Your task to perform on an android device: What's the weather going to be this weekend? Image 0: 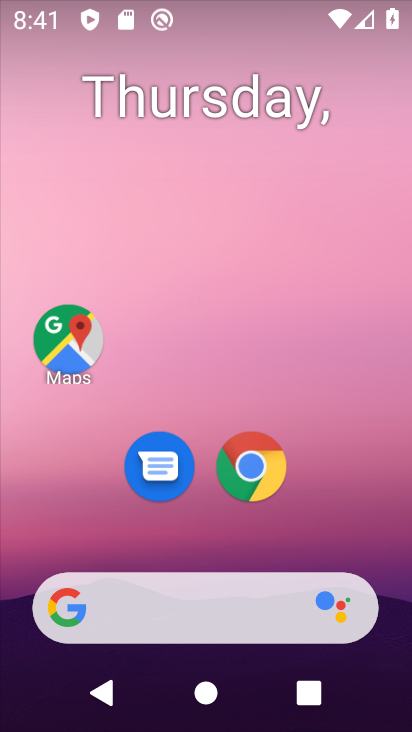
Step 0: press home button
Your task to perform on an android device: What's the weather going to be this weekend? Image 1: 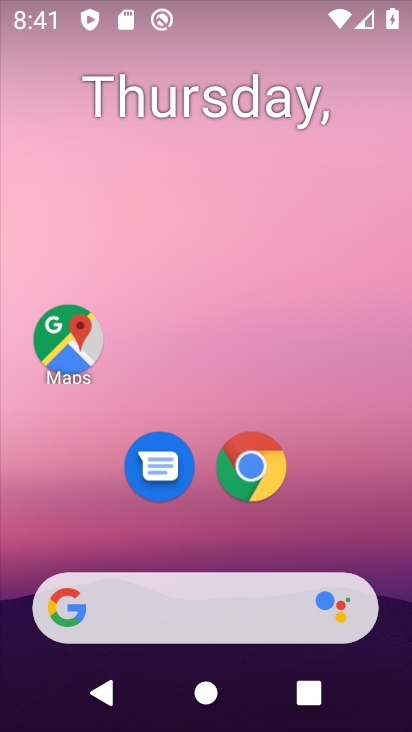
Step 1: drag from (161, 615) to (322, 190)
Your task to perform on an android device: What's the weather going to be this weekend? Image 2: 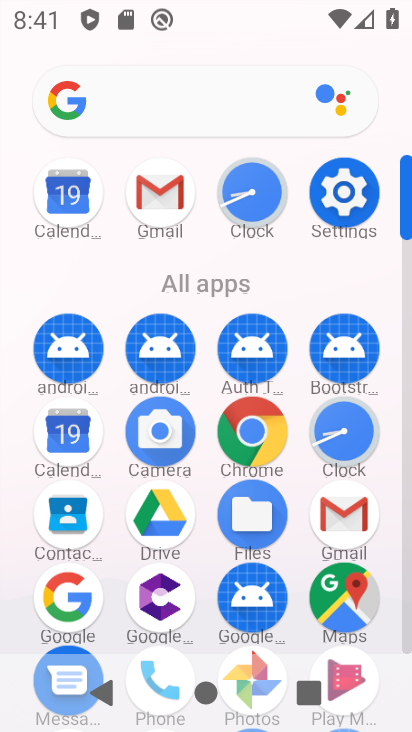
Step 2: click (73, 596)
Your task to perform on an android device: What's the weather going to be this weekend? Image 3: 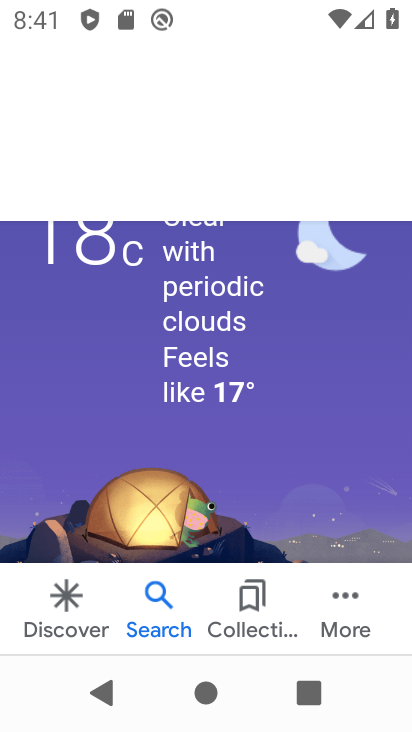
Step 3: click (386, 98)
Your task to perform on an android device: What's the weather going to be this weekend? Image 4: 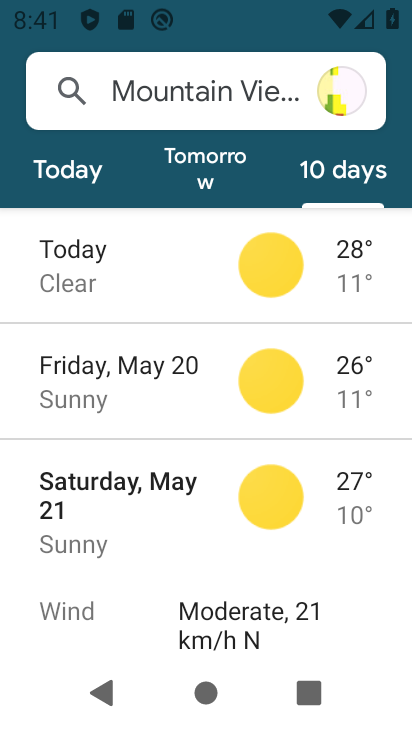
Step 4: task complete